Your task to perform on an android device: turn on priority inbox in the gmail app Image 0: 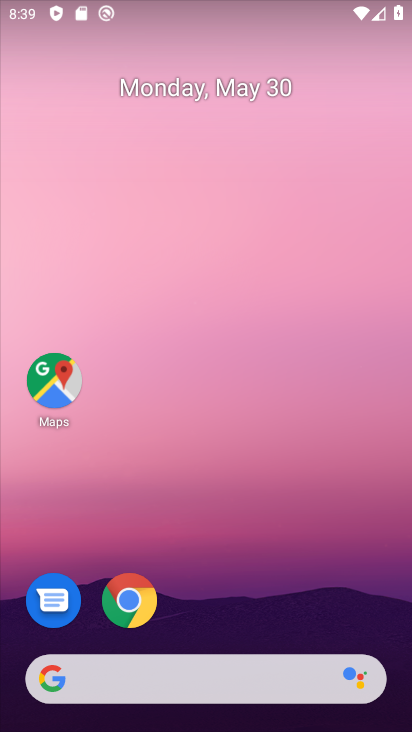
Step 0: drag from (235, 574) to (0, 28)
Your task to perform on an android device: turn on priority inbox in the gmail app Image 1: 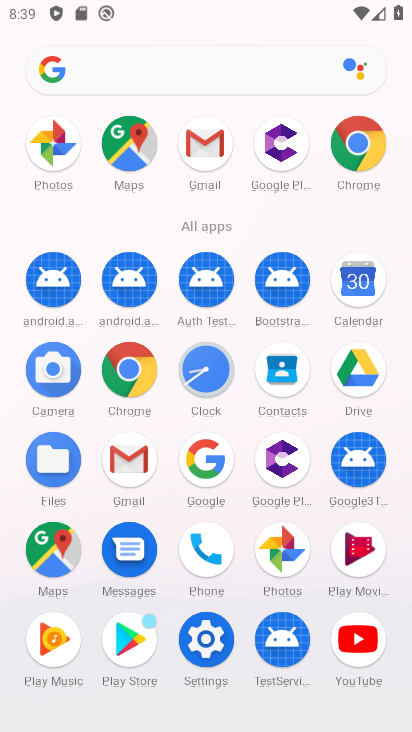
Step 1: drag from (12, 541) to (34, 220)
Your task to perform on an android device: turn on priority inbox in the gmail app Image 2: 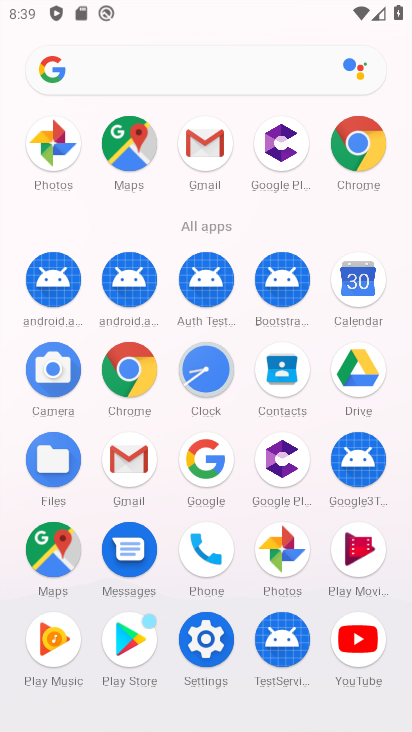
Step 2: click (129, 451)
Your task to perform on an android device: turn on priority inbox in the gmail app Image 3: 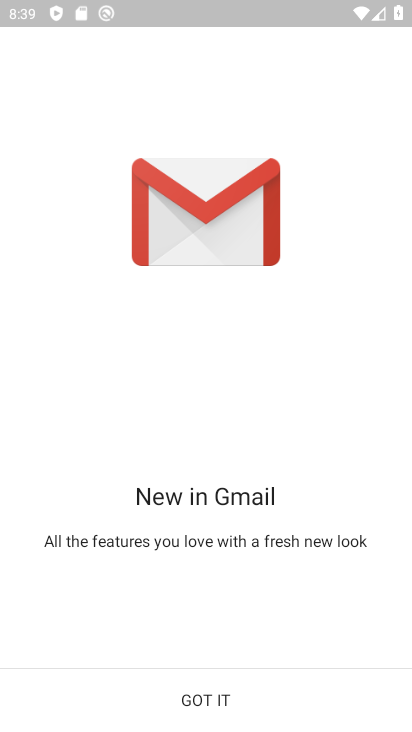
Step 3: click (214, 705)
Your task to perform on an android device: turn on priority inbox in the gmail app Image 4: 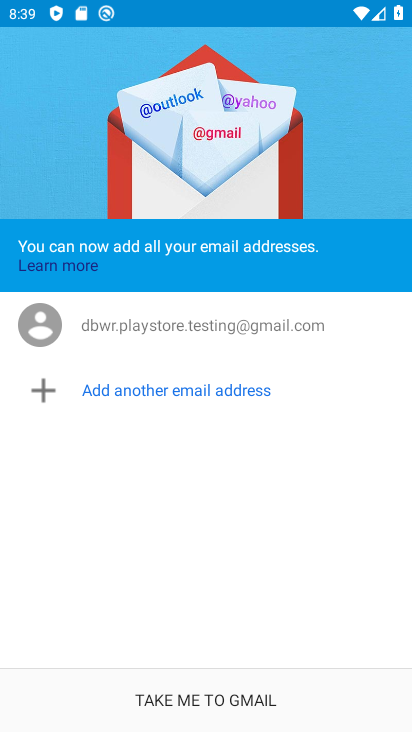
Step 4: click (215, 702)
Your task to perform on an android device: turn on priority inbox in the gmail app Image 5: 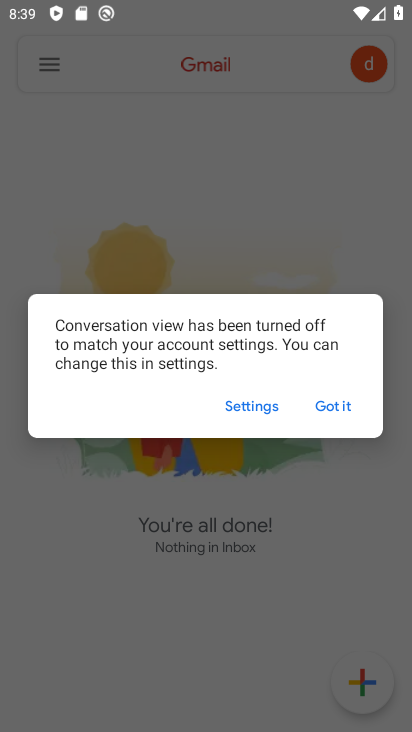
Step 5: click (325, 407)
Your task to perform on an android device: turn on priority inbox in the gmail app Image 6: 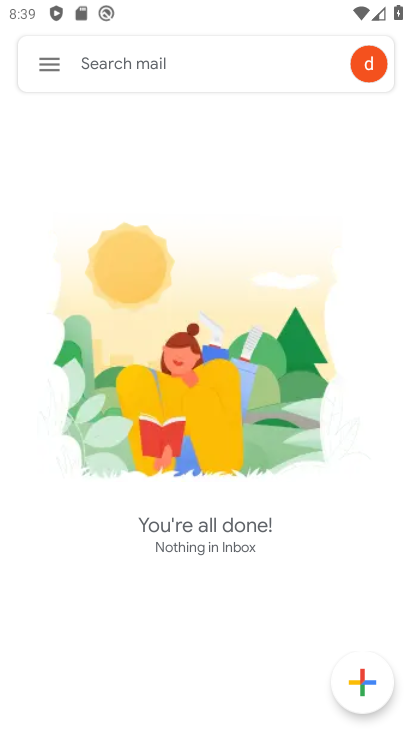
Step 6: click (49, 45)
Your task to perform on an android device: turn on priority inbox in the gmail app Image 7: 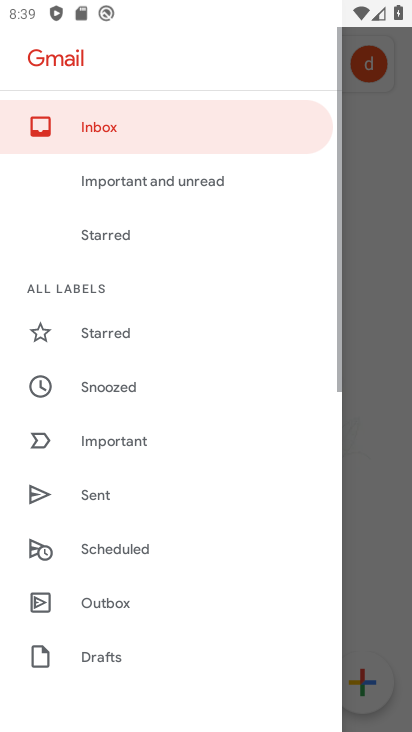
Step 7: drag from (143, 567) to (143, 136)
Your task to perform on an android device: turn on priority inbox in the gmail app Image 8: 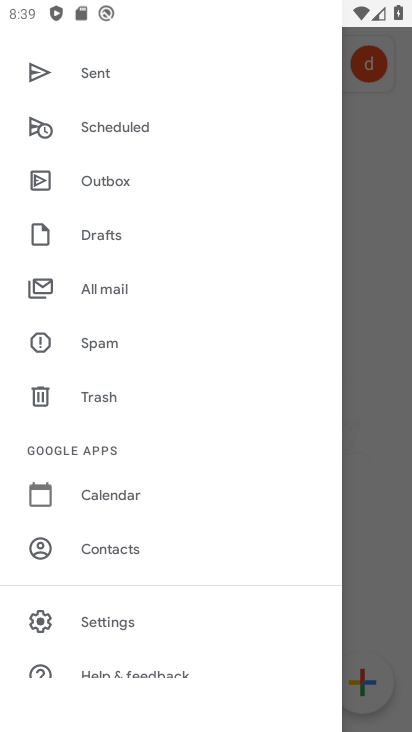
Step 8: click (107, 617)
Your task to perform on an android device: turn on priority inbox in the gmail app Image 9: 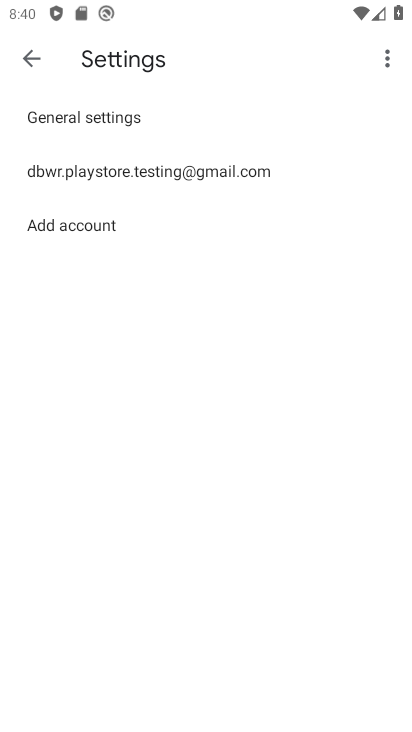
Step 9: click (170, 176)
Your task to perform on an android device: turn on priority inbox in the gmail app Image 10: 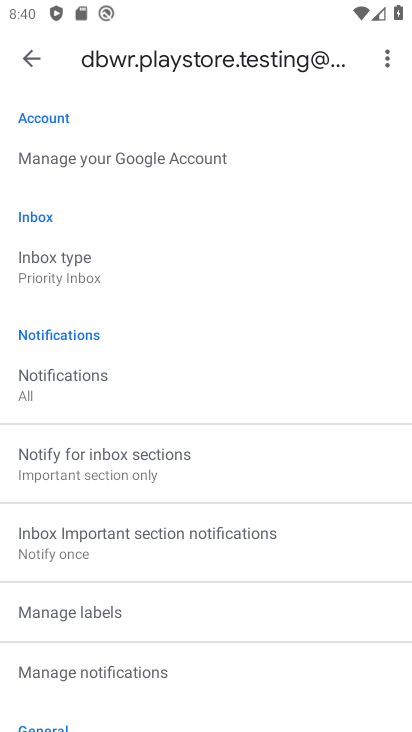
Step 10: task complete